Your task to perform on an android device: Open calendar and show me the third week of next month Image 0: 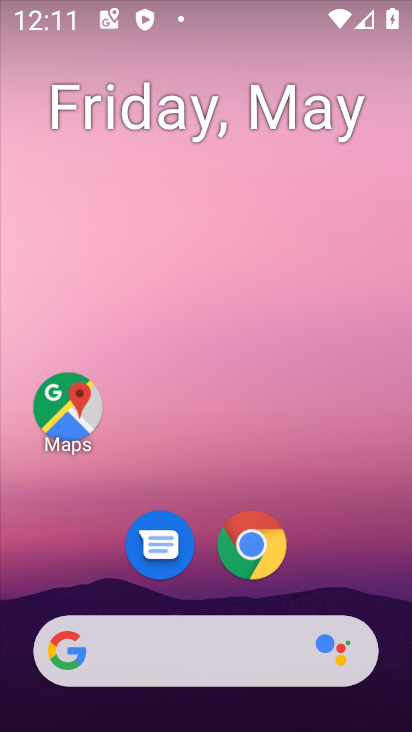
Step 0: drag from (301, 551) to (298, 229)
Your task to perform on an android device: Open calendar and show me the third week of next month Image 1: 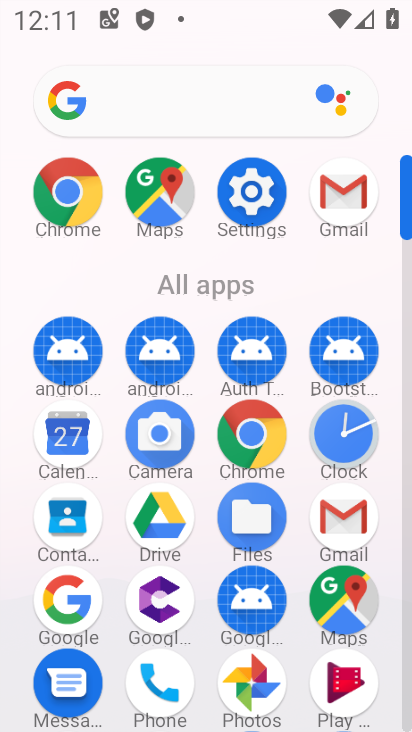
Step 1: click (76, 436)
Your task to perform on an android device: Open calendar and show me the third week of next month Image 2: 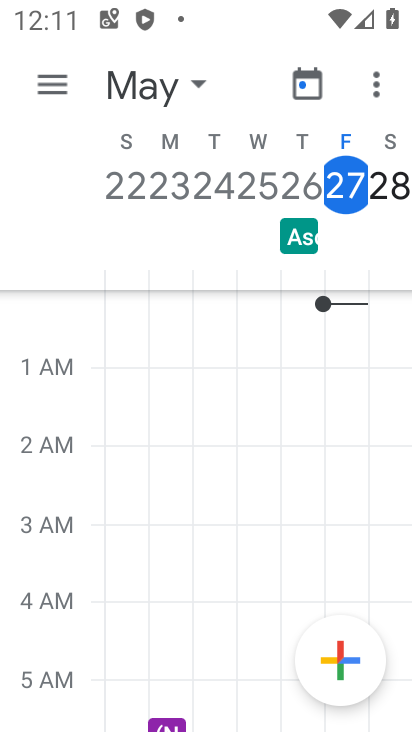
Step 2: click (35, 89)
Your task to perform on an android device: Open calendar and show me the third week of next month Image 3: 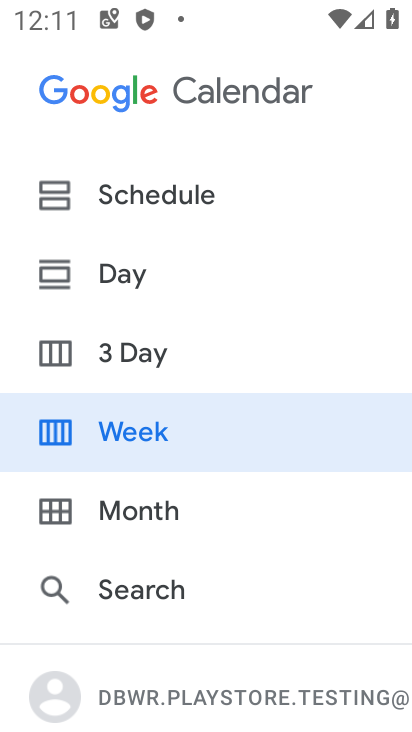
Step 3: click (148, 510)
Your task to perform on an android device: Open calendar and show me the third week of next month Image 4: 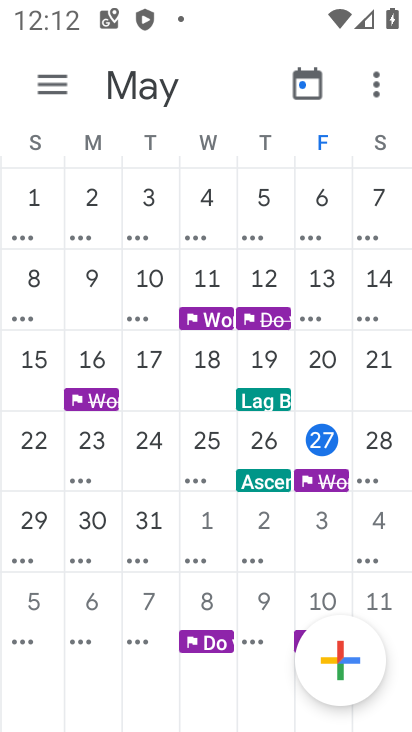
Step 4: task complete